Your task to perform on an android device: Open maps Image 0: 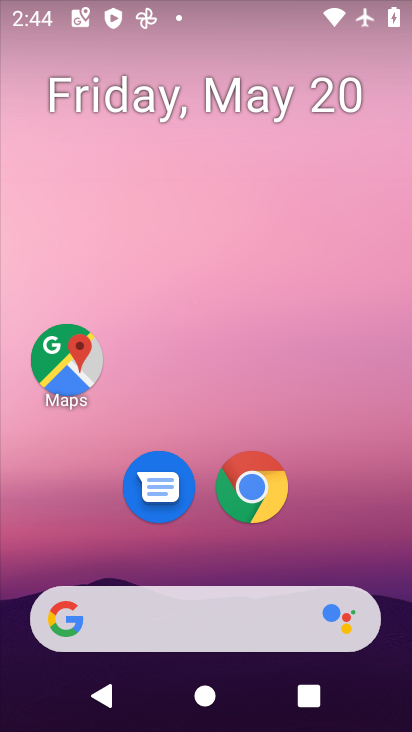
Step 0: drag from (331, 529) to (369, 72)
Your task to perform on an android device: Open maps Image 1: 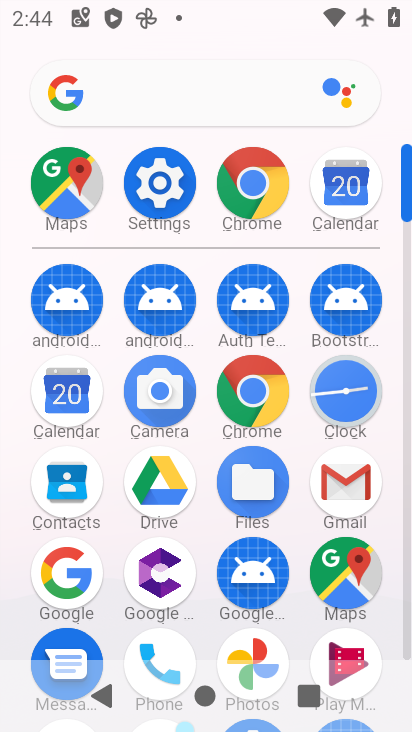
Step 1: click (81, 182)
Your task to perform on an android device: Open maps Image 2: 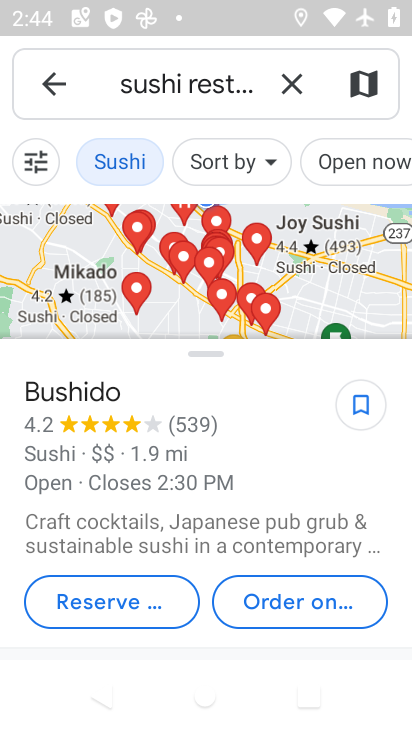
Step 2: task complete